Your task to perform on an android device: Is it going to rain today? Image 0: 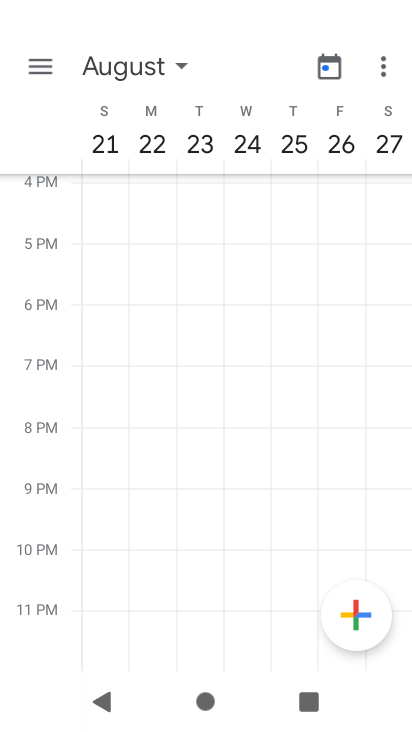
Step 0: press home button
Your task to perform on an android device: Is it going to rain today? Image 1: 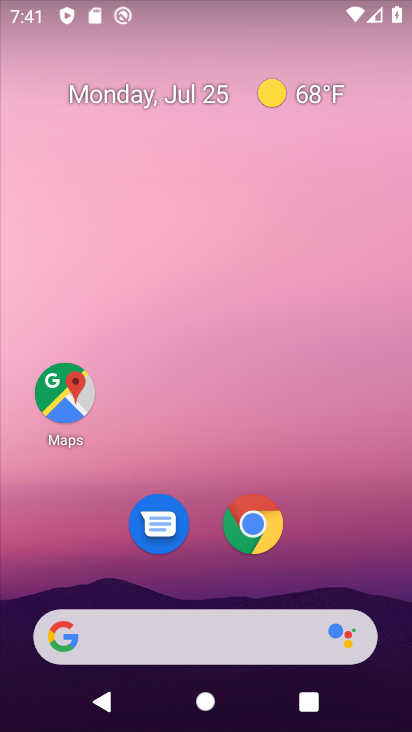
Step 1: click (209, 641)
Your task to perform on an android device: Is it going to rain today? Image 2: 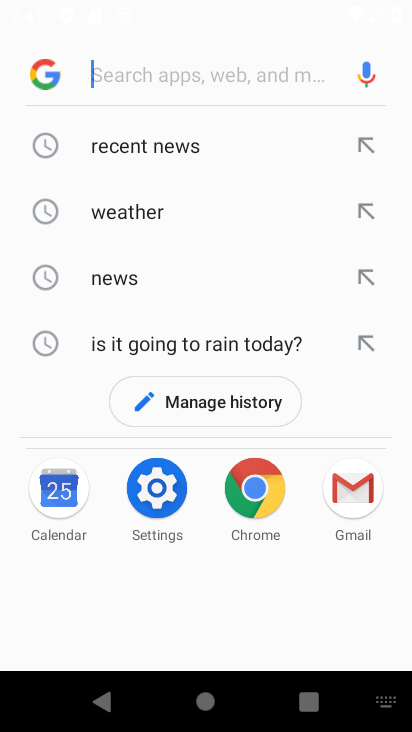
Step 2: click (117, 212)
Your task to perform on an android device: Is it going to rain today? Image 3: 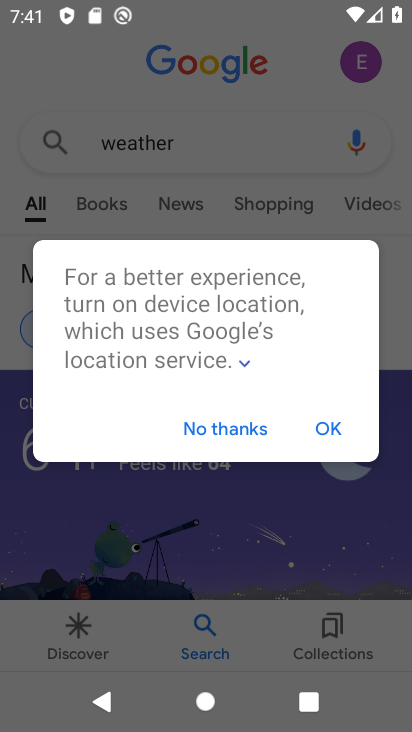
Step 3: click (242, 426)
Your task to perform on an android device: Is it going to rain today? Image 4: 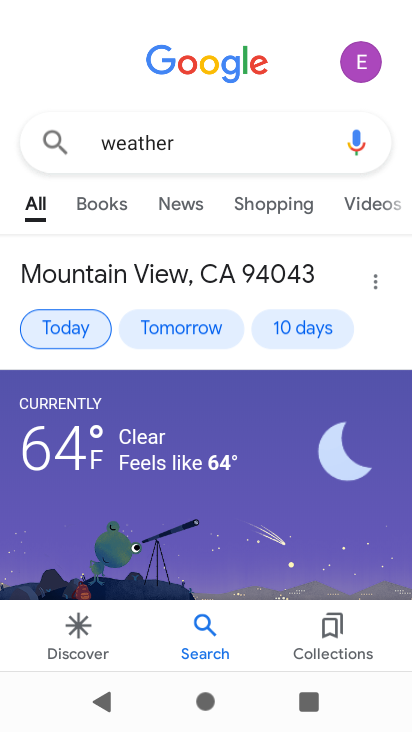
Step 4: click (74, 324)
Your task to perform on an android device: Is it going to rain today? Image 5: 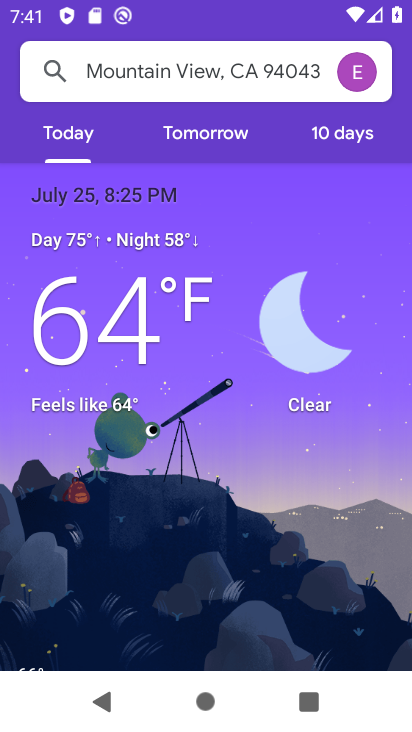
Step 5: task complete